Your task to perform on an android device: Open maps Image 0: 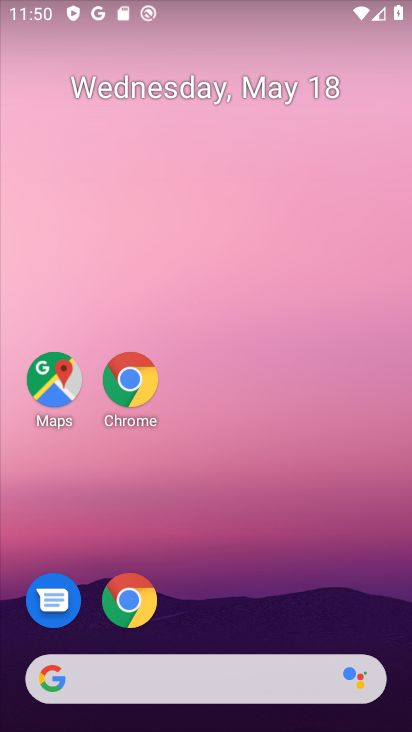
Step 0: drag from (250, 241) to (207, 111)
Your task to perform on an android device: Open maps Image 1: 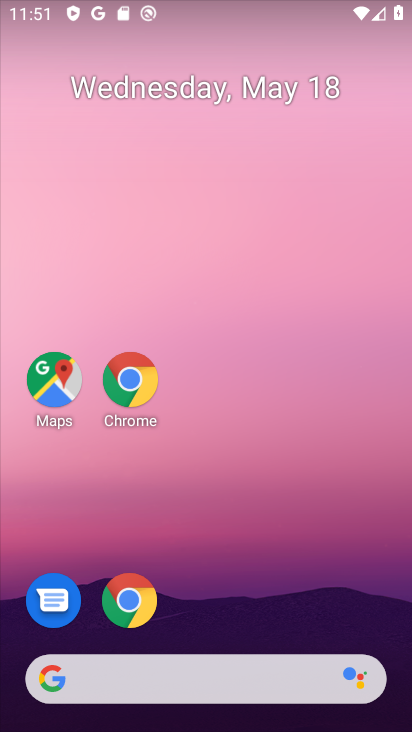
Step 1: drag from (292, 490) to (130, 56)
Your task to perform on an android device: Open maps Image 2: 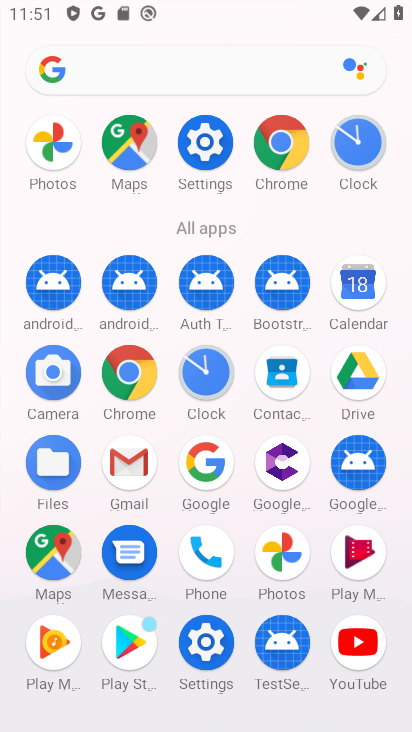
Step 2: click (42, 556)
Your task to perform on an android device: Open maps Image 3: 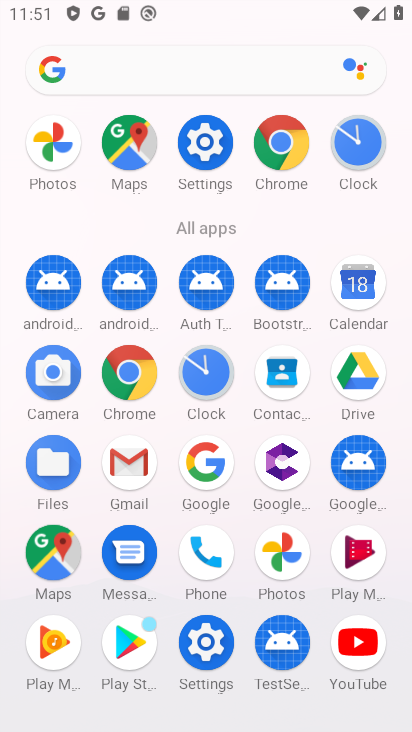
Step 3: click (46, 555)
Your task to perform on an android device: Open maps Image 4: 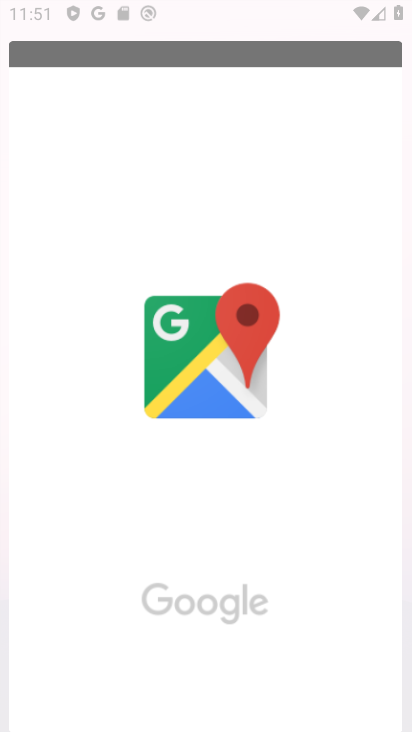
Step 4: click (49, 555)
Your task to perform on an android device: Open maps Image 5: 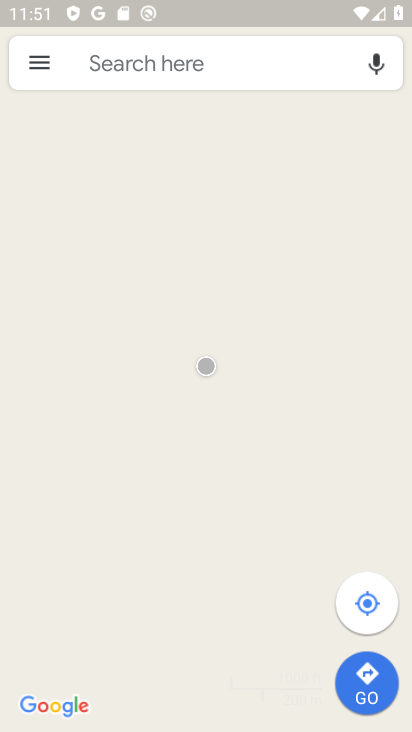
Step 5: task complete